Your task to perform on an android device: Open settings on Google Maps Image 0: 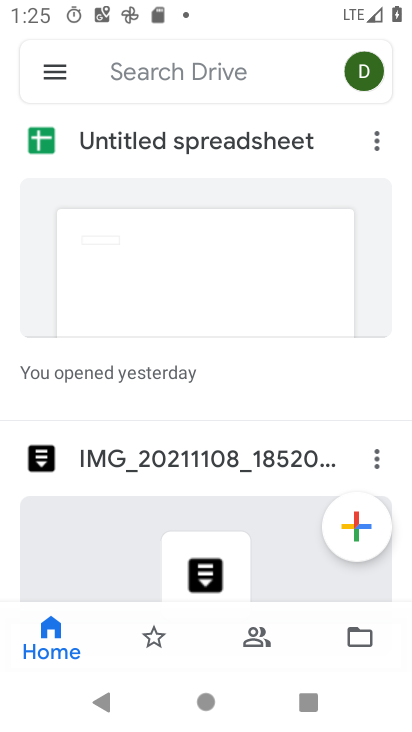
Step 0: press home button
Your task to perform on an android device: Open settings on Google Maps Image 1: 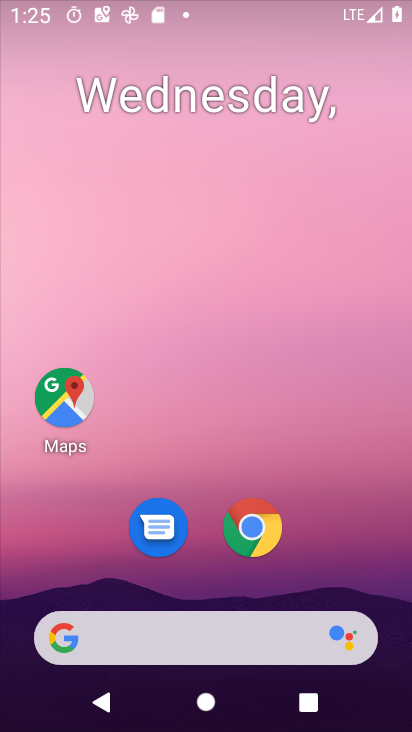
Step 1: drag from (244, 591) to (244, 53)
Your task to perform on an android device: Open settings on Google Maps Image 2: 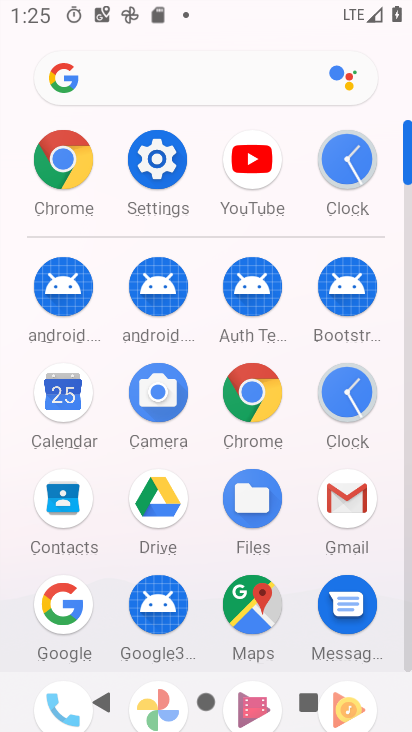
Step 2: click (263, 603)
Your task to perform on an android device: Open settings on Google Maps Image 3: 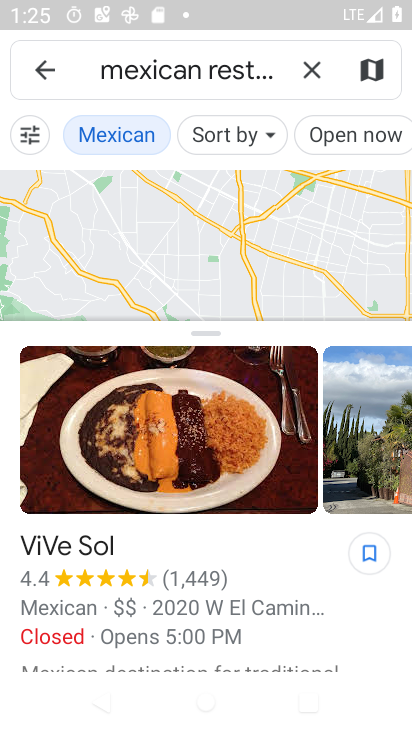
Step 3: press back button
Your task to perform on an android device: Open settings on Google Maps Image 4: 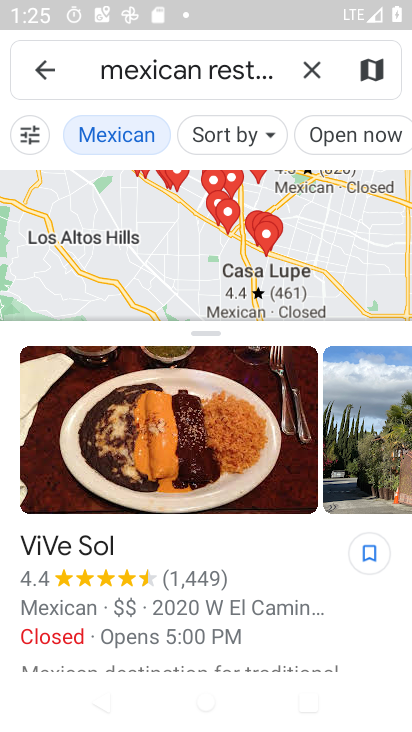
Step 4: press back button
Your task to perform on an android device: Open settings on Google Maps Image 5: 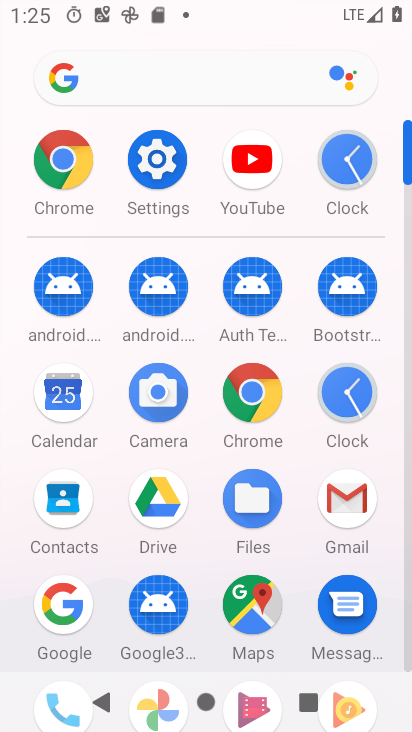
Step 5: click (262, 612)
Your task to perform on an android device: Open settings on Google Maps Image 6: 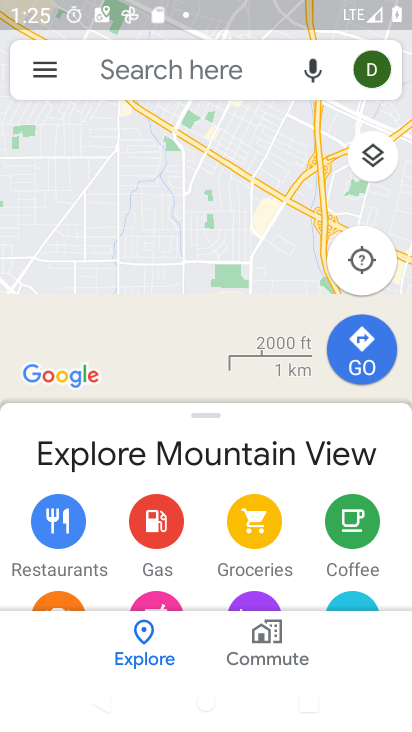
Step 6: click (58, 71)
Your task to perform on an android device: Open settings on Google Maps Image 7: 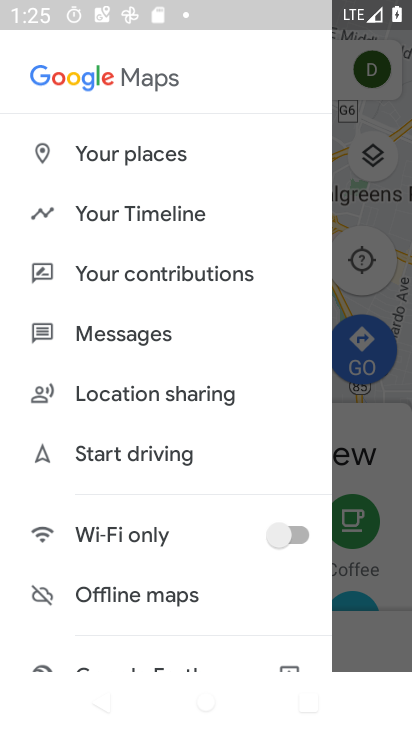
Step 7: click (91, 219)
Your task to perform on an android device: Open settings on Google Maps Image 8: 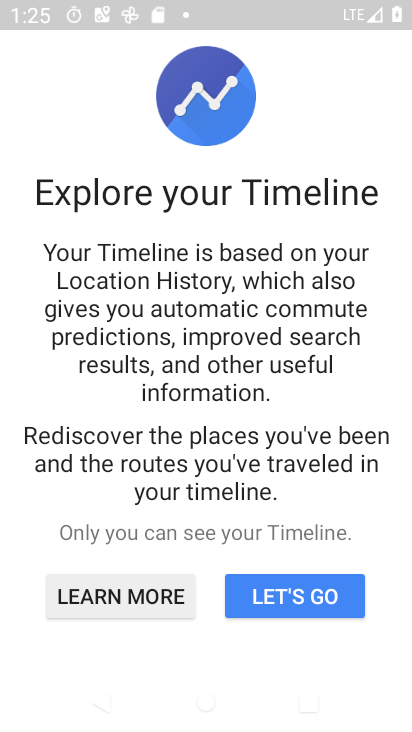
Step 8: click (289, 596)
Your task to perform on an android device: Open settings on Google Maps Image 9: 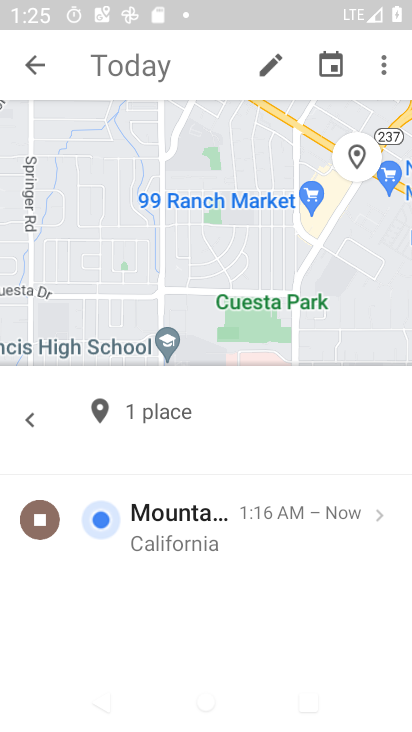
Step 9: click (382, 55)
Your task to perform on an android device: Open settings on Google Maps Image 10: 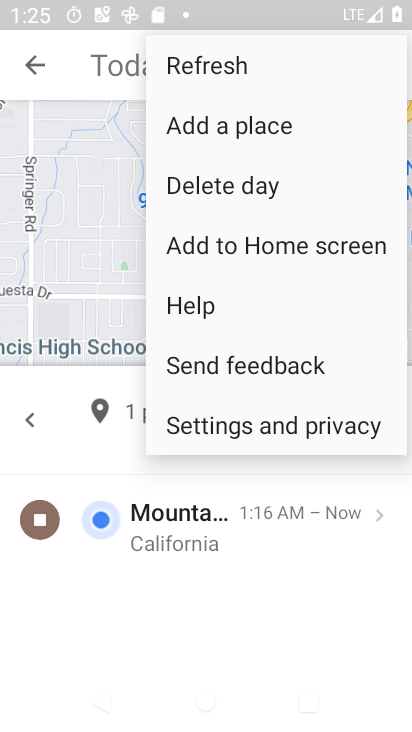
Step 10: click (248, 422)
Your task to perform on an android device: Open settings on Google Maps Image 11: 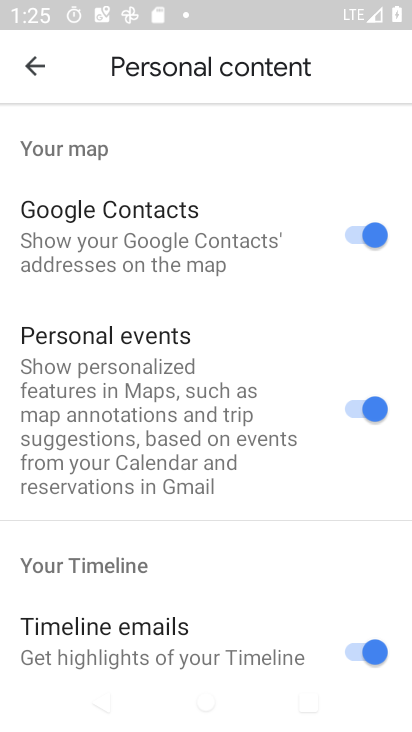
Step 11: task complete